Your task to perform on an android device: find which apps use the phone's location Image 0: 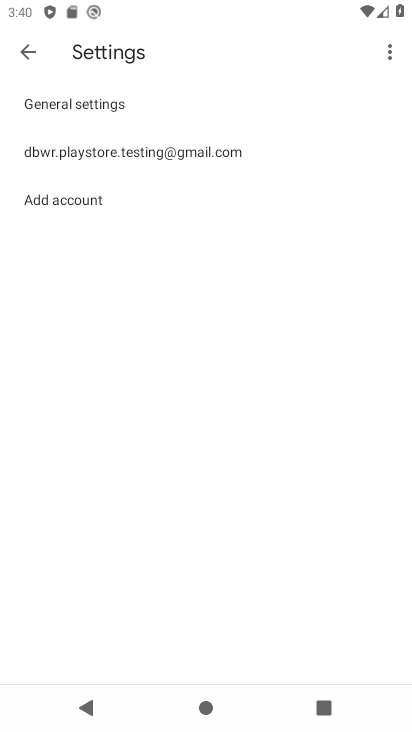
Step 0: press home button
Your task to perform on an android device: find which apps use the phone's location Image 1: 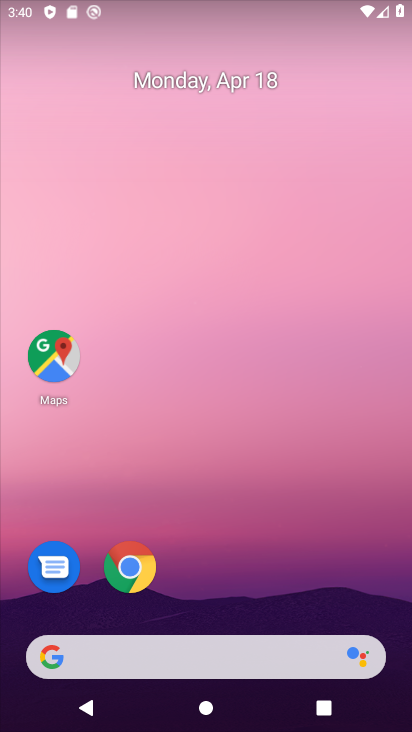
Step 1: drag from (313, 503) to (309, 108)
Your task to perform on an android device: find which apps use the phone's location Image 2: 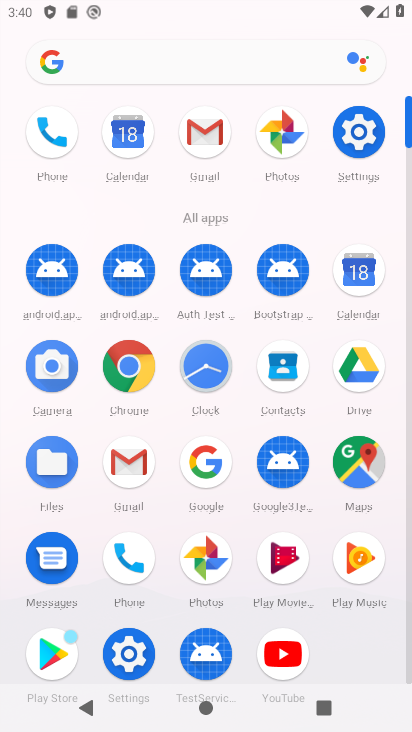
Step 2: click (350, 132)
Your task to perform on an android device: find which apps use the phone's location Image 3: 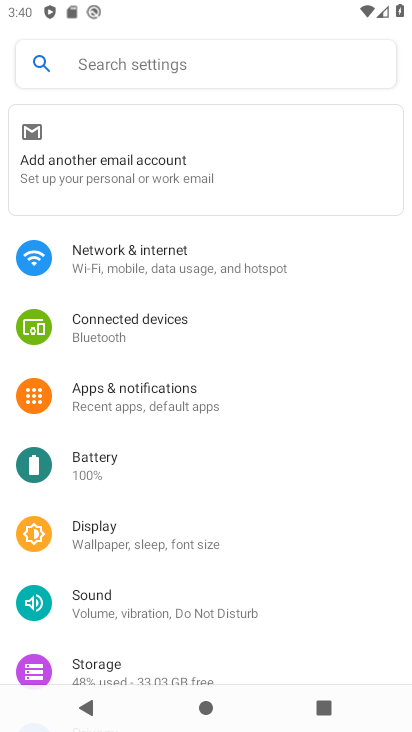
Step 3: drag from (166, 610) to (164, 346)
Your task to perform on an android device: find which apps use the phone's location Image 4: 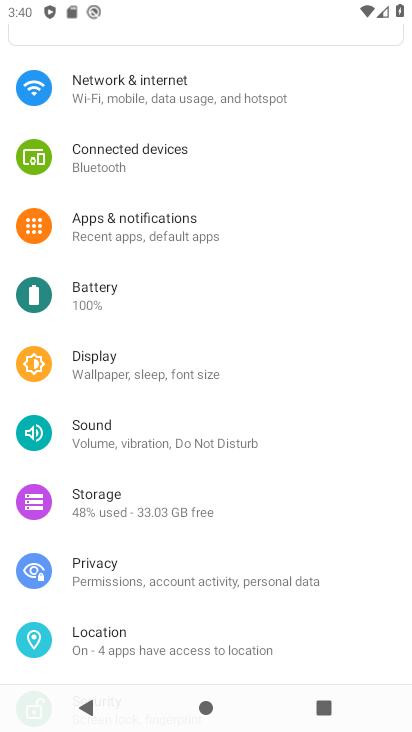
Step 4: click (131, 650)
Your task to perform on an android device: find which apps use the phone's location Image 5: 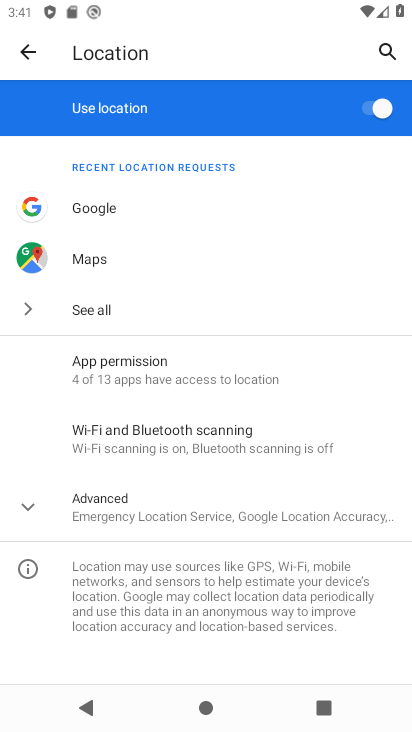
Step 5: click (77, 221)
Your task to perform on an android device: find which apps use the phone's location Image 6: 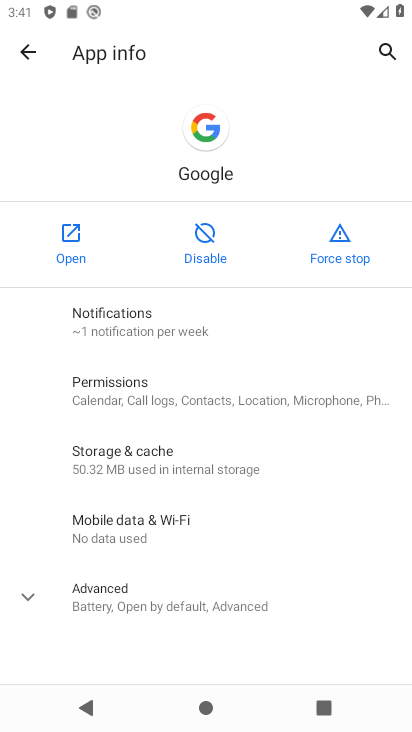
Step 6: click (144, 382)
Your task to perform on an android device: find which apps use the phone's location Image 7: 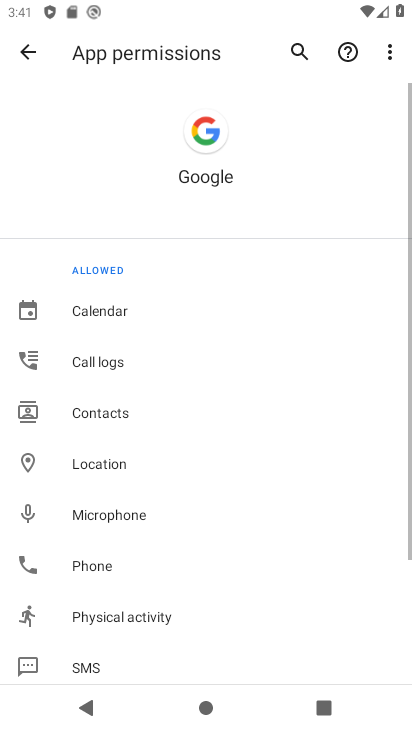
Step 7: click (136, 467)
Your task to perform on an android device: find which apps use the phone's location Image 8: 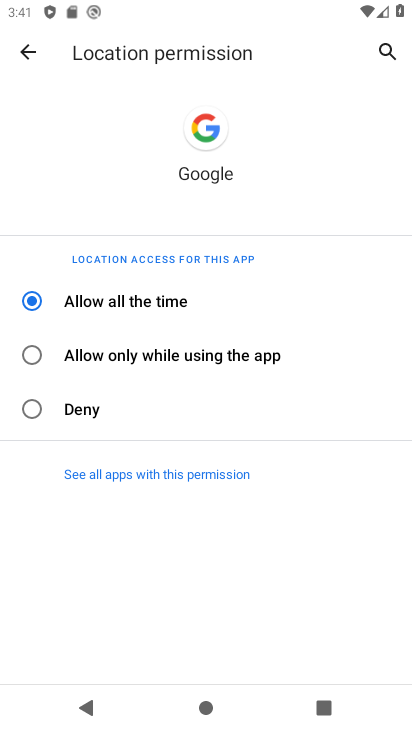
Step 8: task complete